Your task to perform on an android device: turn on data saver in the chrome app Image 0: 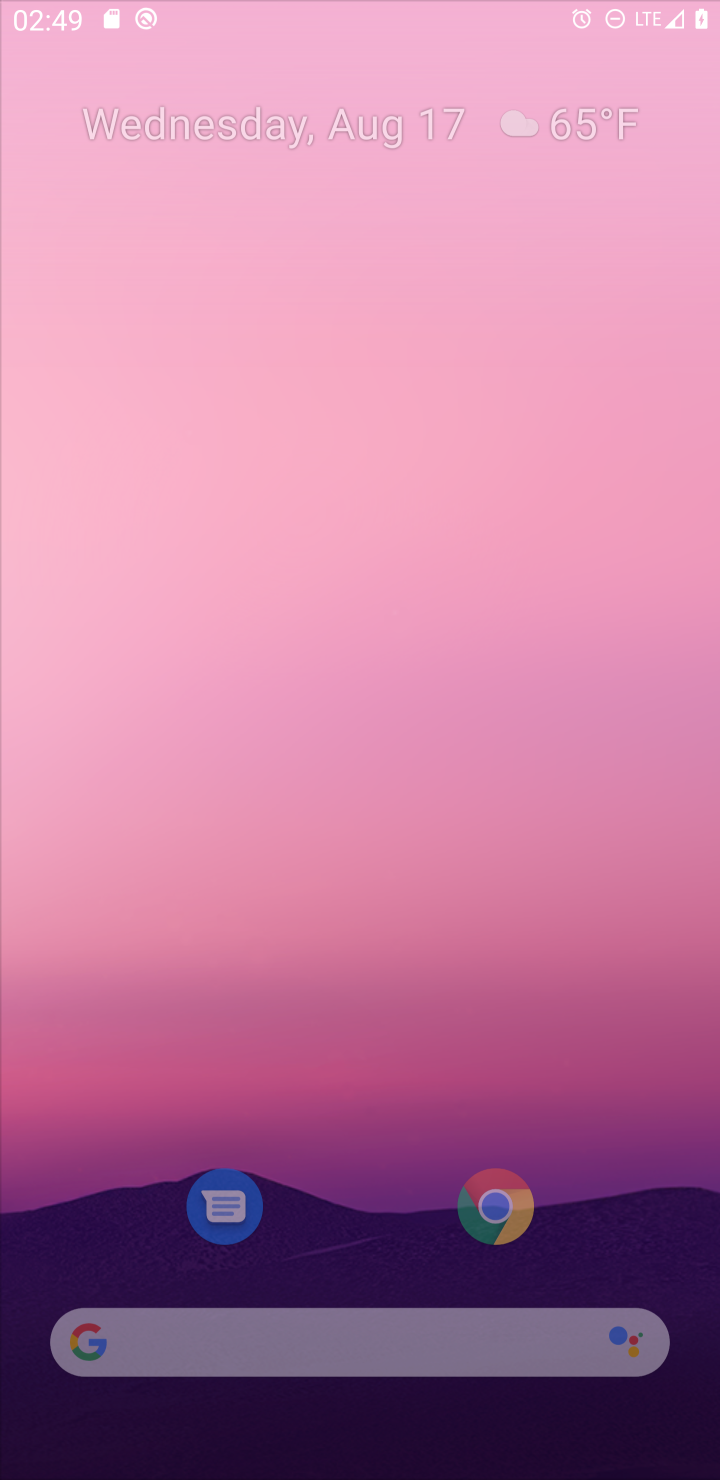
Step 0: press home button
Your task to perform on an android device: turn on data saver in the chrome app Image 1: 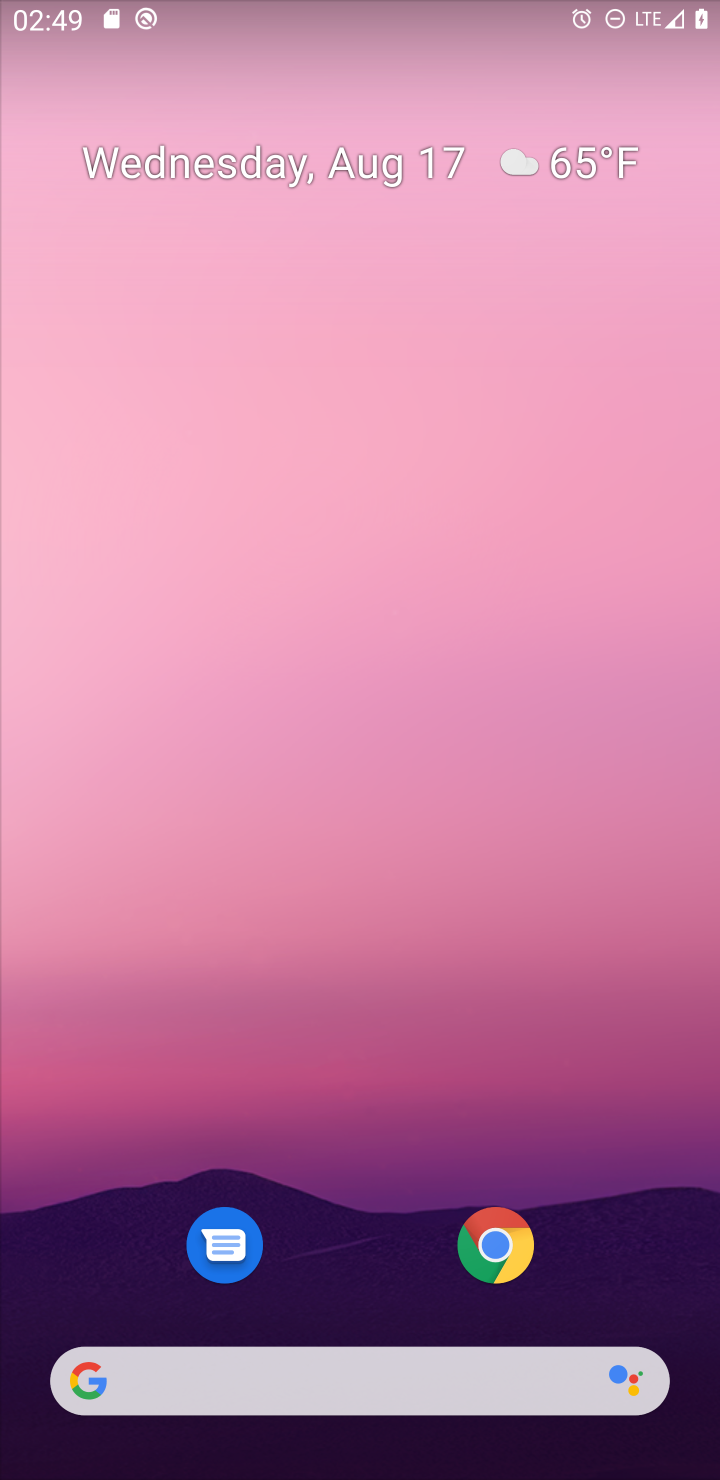
Step 1: click (494, 1248)
Your task to perform on an android device: turn on data saver in the chrome app Image 2: 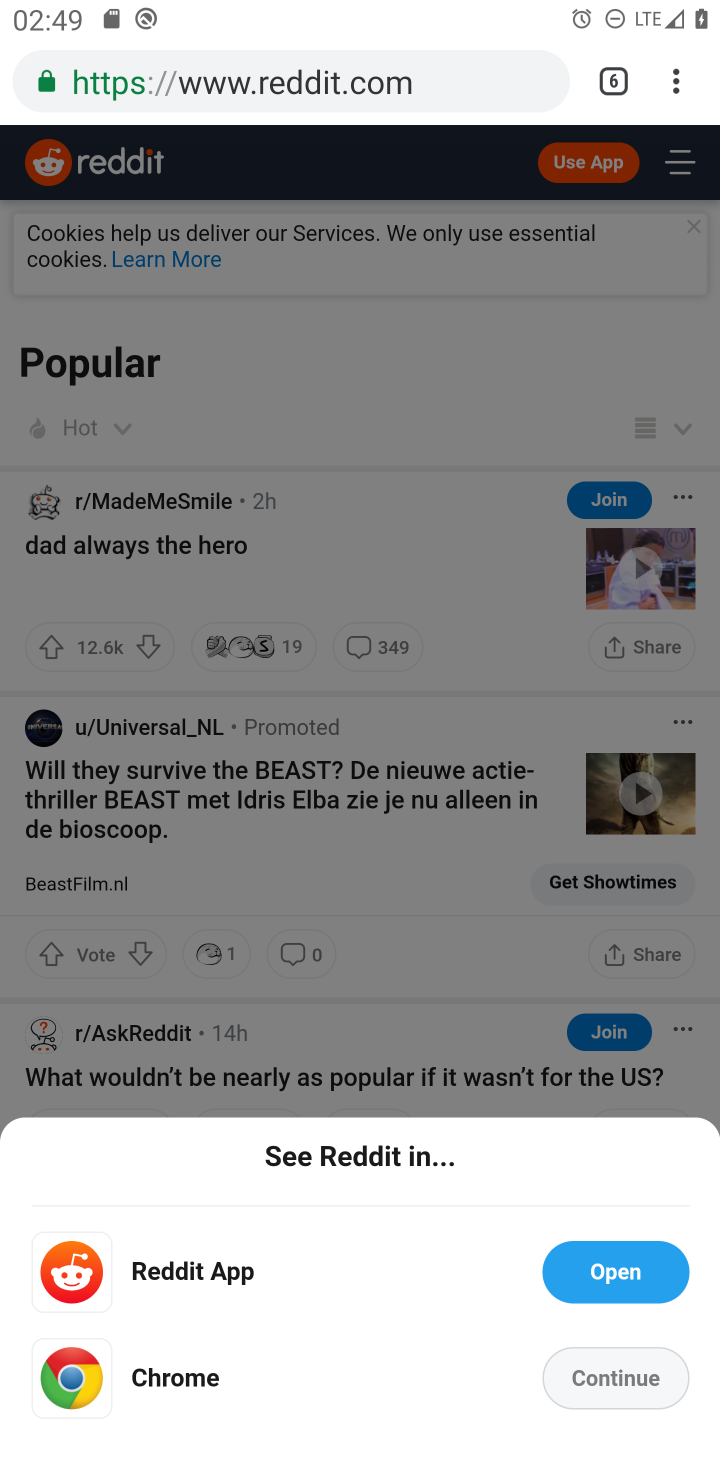
Step 2: drag from (676, 88) to (415, 1094)
Your task to perform on an android device: turn on data saver in the chrome app Image 3: 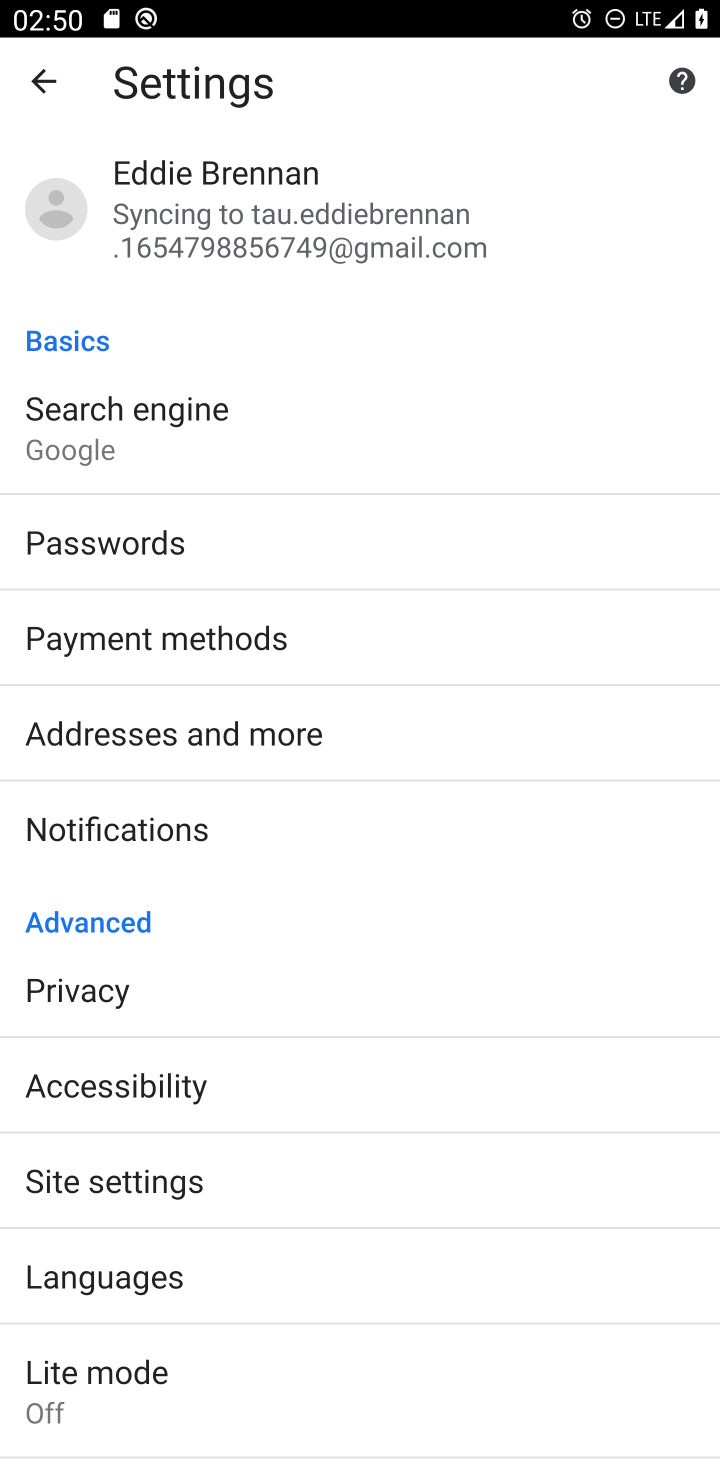
Step 3: click (137, 1370)
Your task to perform on an android device: turn on data saver in the chrome app Image 4: 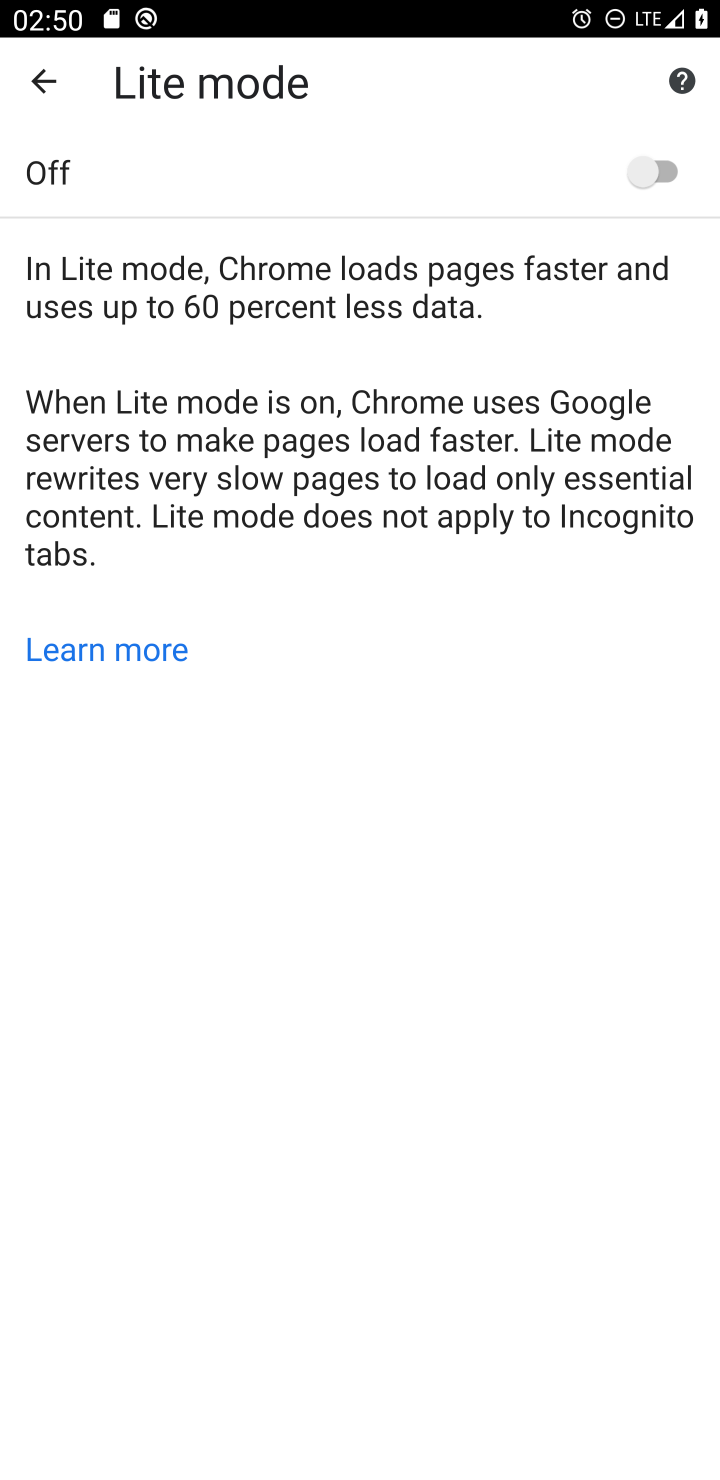
Step 4: click (663, 175)
Your task to perform on an android device: turn on data saver in the chrome app Image 5: 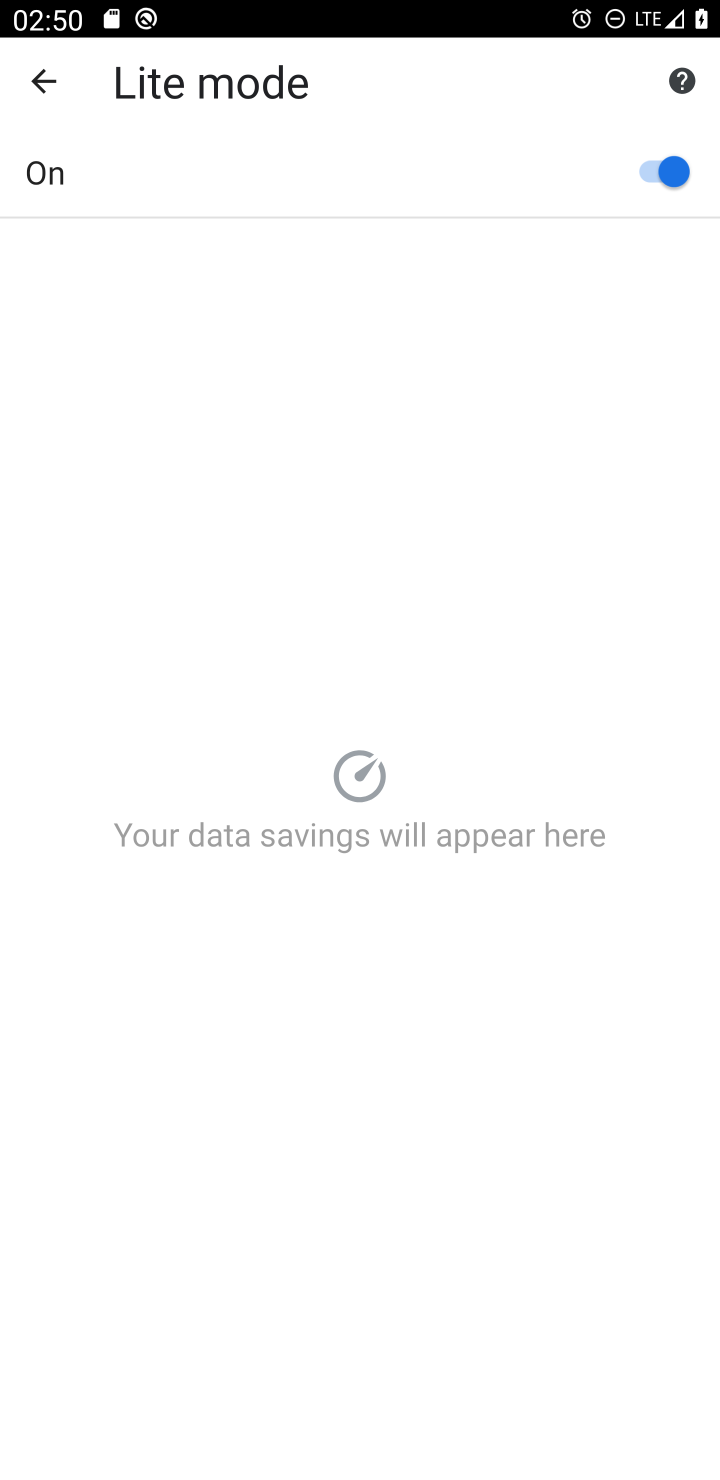
Step 5: task complete